Your task to perform on an android device: uninstall "DoorDash - Dasher" Image 0: 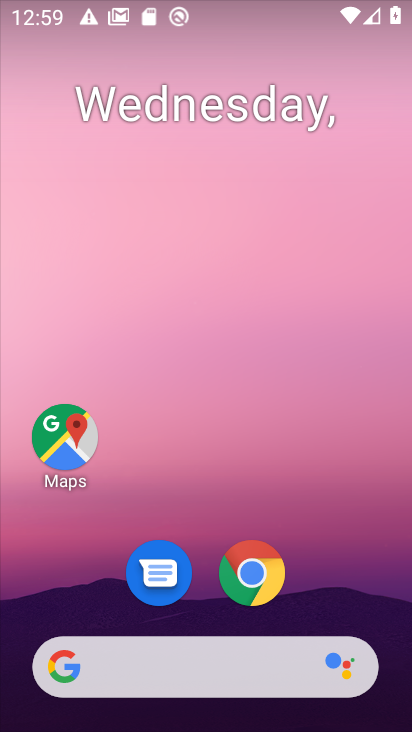
Step 0: press home button
Your task to perform on an android device: uninstall "DoorDash - Dasher" Image 1: 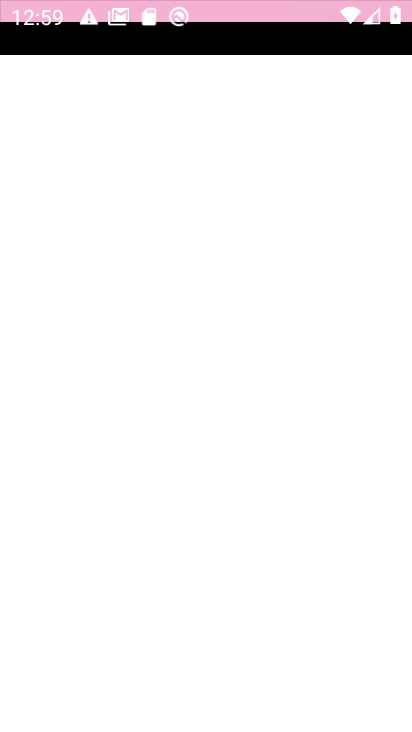
Step 1: drag from (312, 616) to (335, 12)
Your task to perform on an android device: uninstall "DoorDash - Dasher" Image 2: 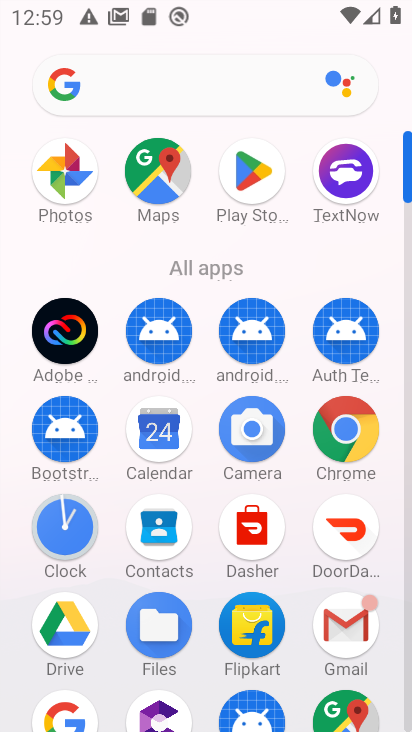
Step 2: click (240, 158)
Your task to perform on an android device: uninstall "DoorDash - Dasher" Image 3: 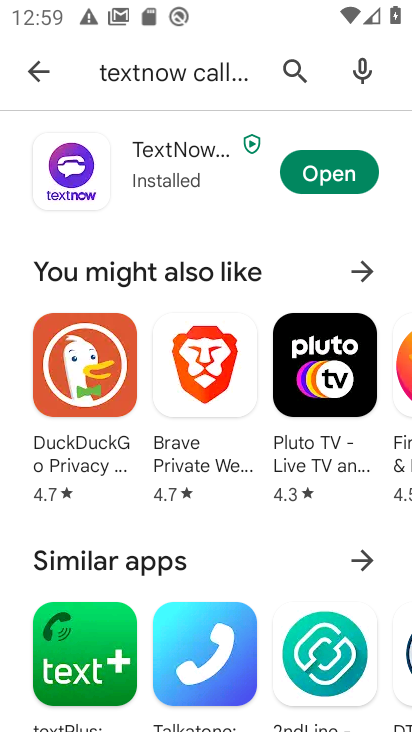
Step 3: click (296, 66)
Your task to perform on an android device: uninstall "DoorDash - Dasher" Image 4: 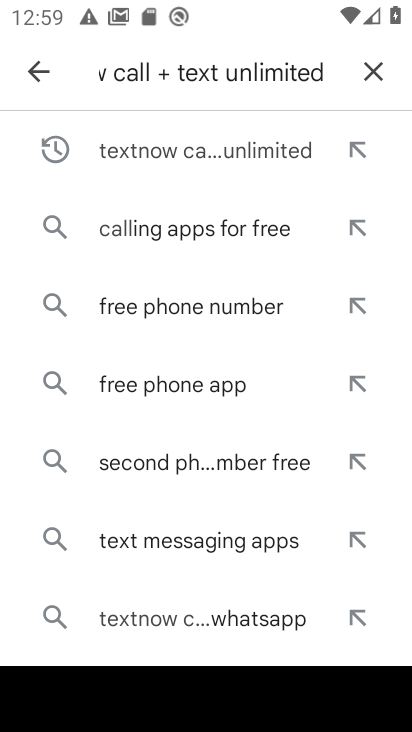
Step 4: click (369, 73)
Your task to perform on an android device: uninstall "DoorDash - Dasher" Image 5: 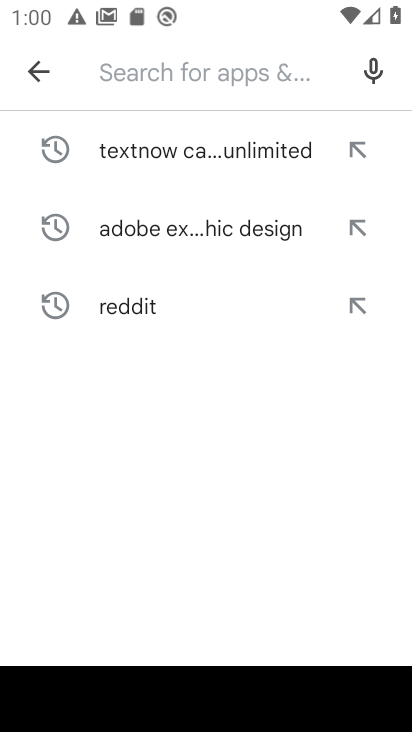
Step 5: type "DoorDash - Dasher"
Your task to perform on an android device: uninstall "DoorDash - Dasher" Image 6: 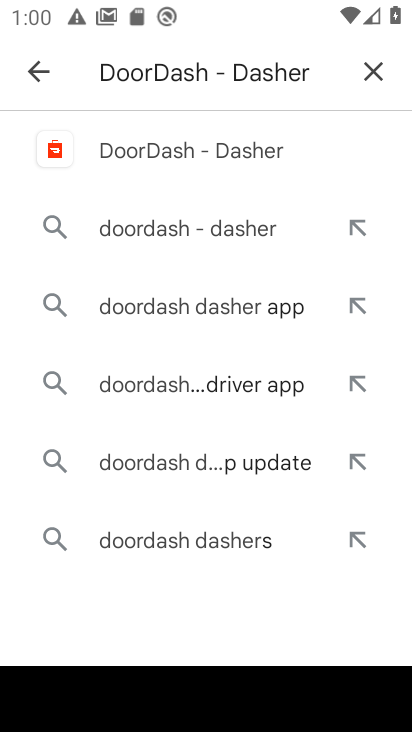
Step 6: click (238, 147)
Your task to perform on an android device: uninstall "DoorDash - Dasher" Image 7: 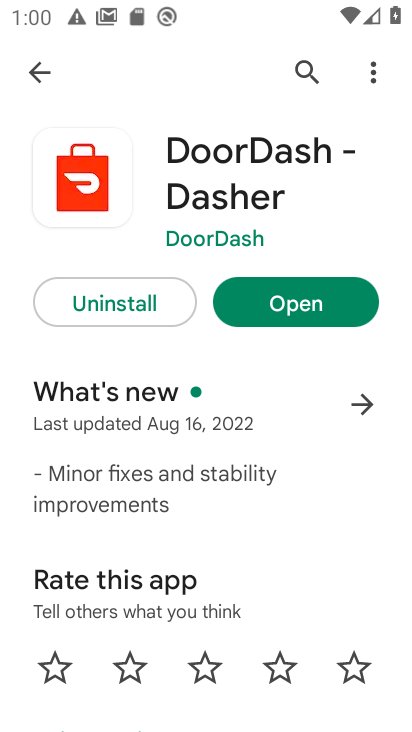
Step 7: click (132, 308)
Your task to perform on an android device: uninstall "DoorDash - Dasher" Image 8: 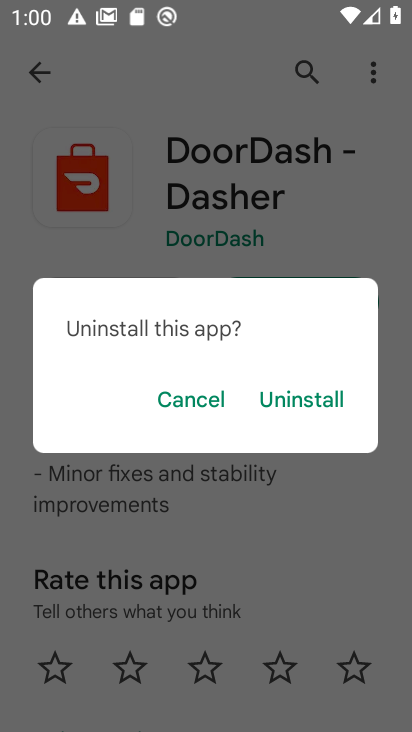
Step 8: click (309, 400)
Your task to perform on an android device: uninstall "DoorDash - Dasher" Image 9: 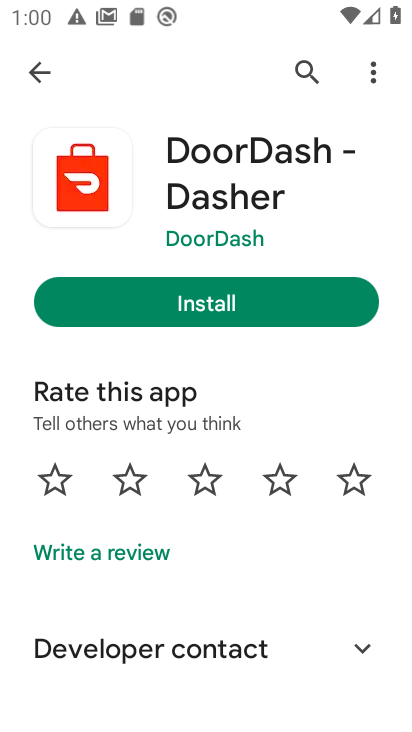
Step 9: task complete